Your task to perform on an android device: uninstall "Contacts" Image 0: 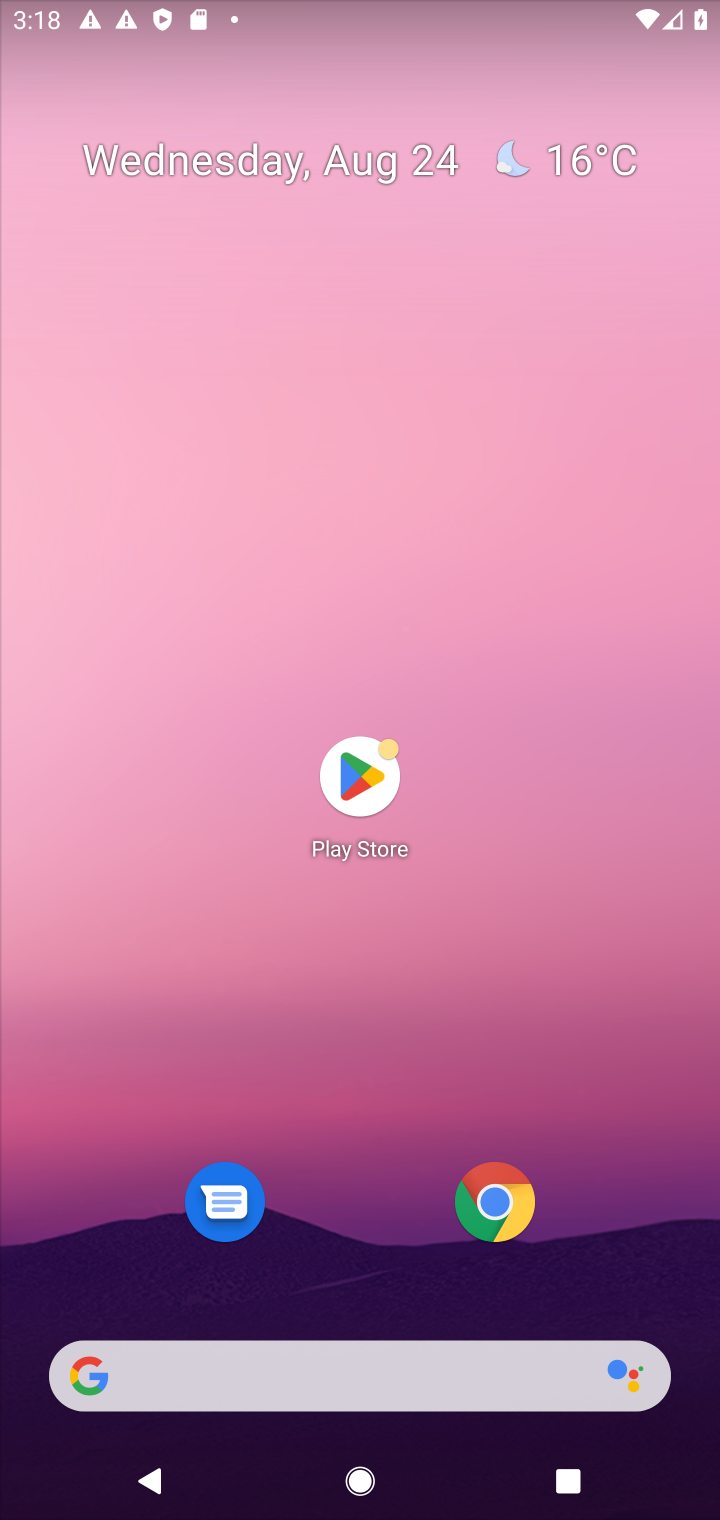
Step 0: click (356, 762)
Your task to perform on an android device: uninstall "Contacts" Image 1: 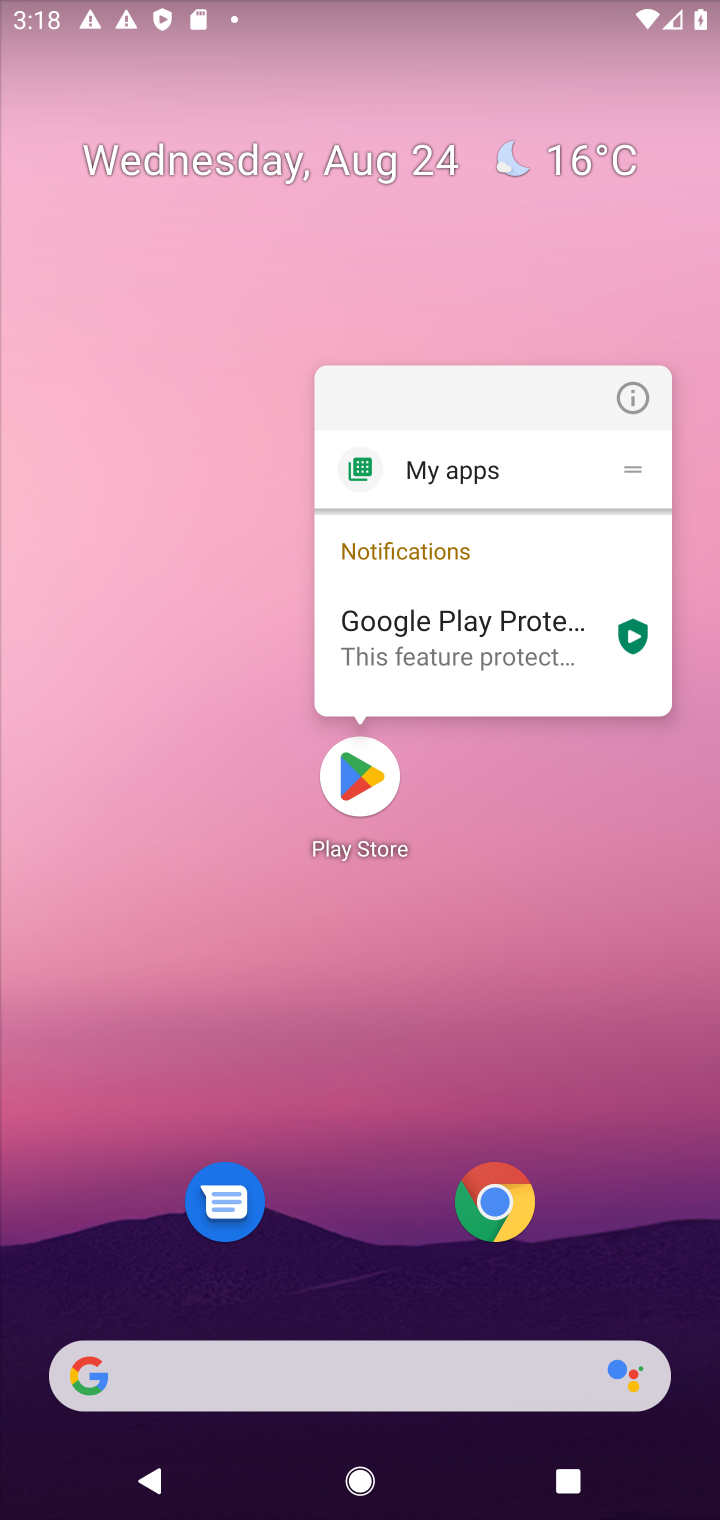
Step 1: click (356, 766)
Your task to perform on an android device: uninstall "Contacts" Image 2: 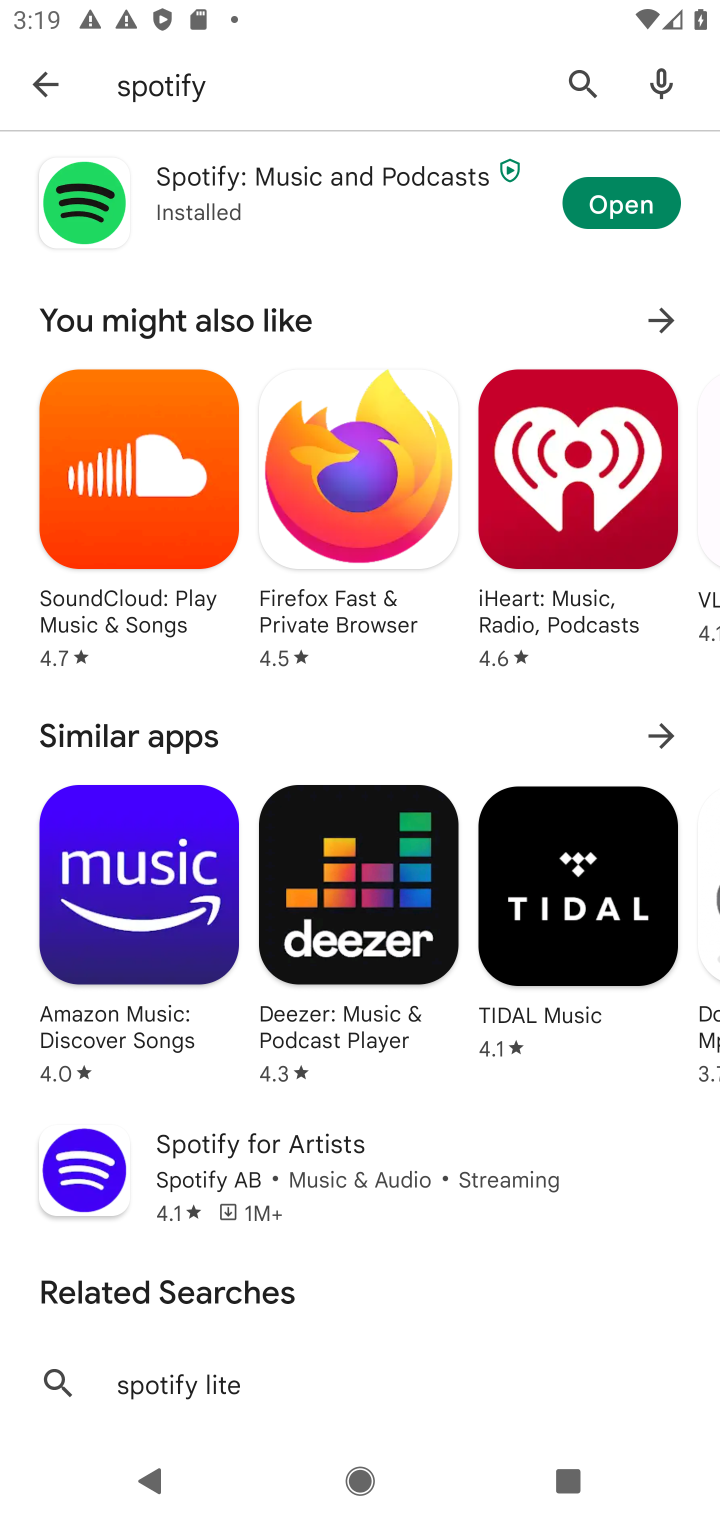
Step 2: click (575, 78)
Your task to perform on an android device: uninstall "Contacts" Image 3: 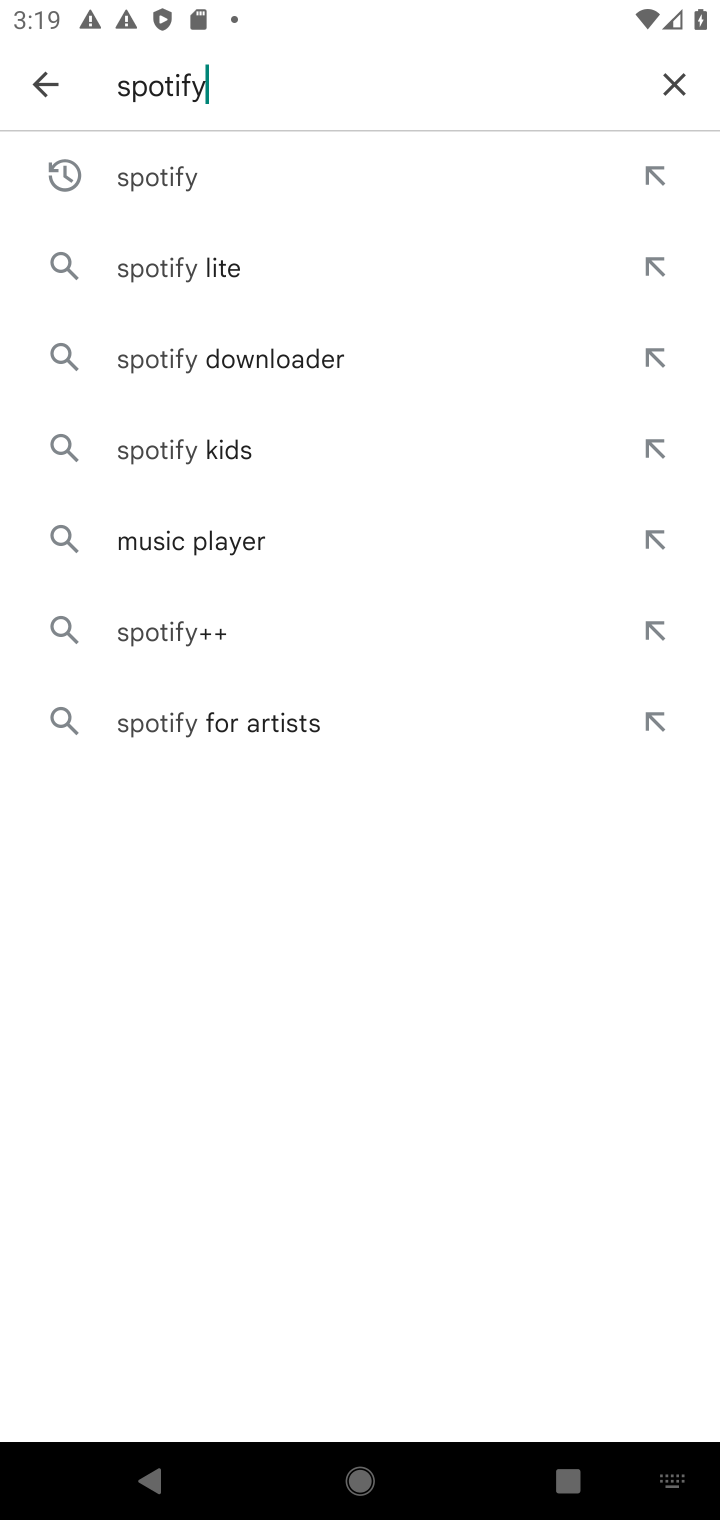
Step 3: click (676, 80)
Your task to perform on an android device: uninstall "Contacts" Image 4: 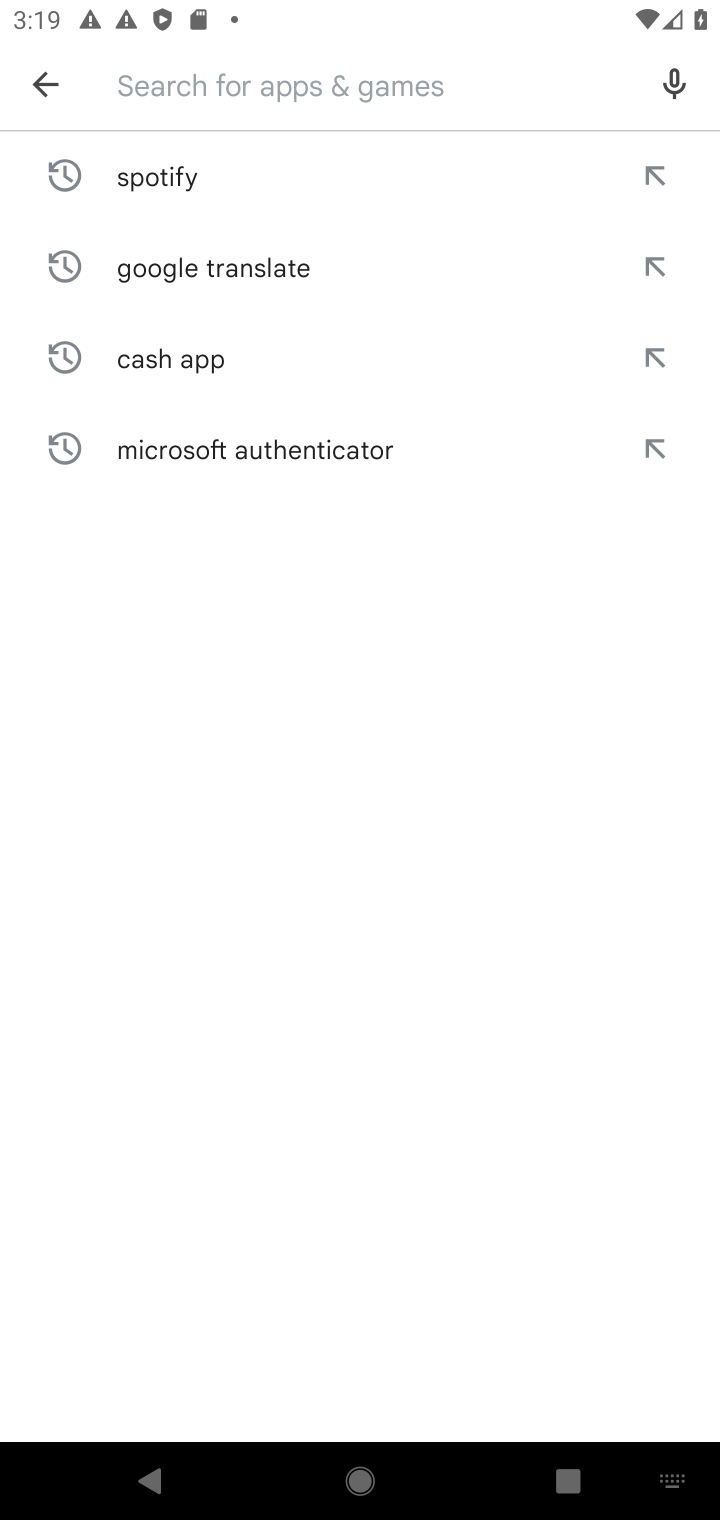
Step 4: type "Contacts"
Your task to perform on an android device: uninstall "Contacts" Image 5: 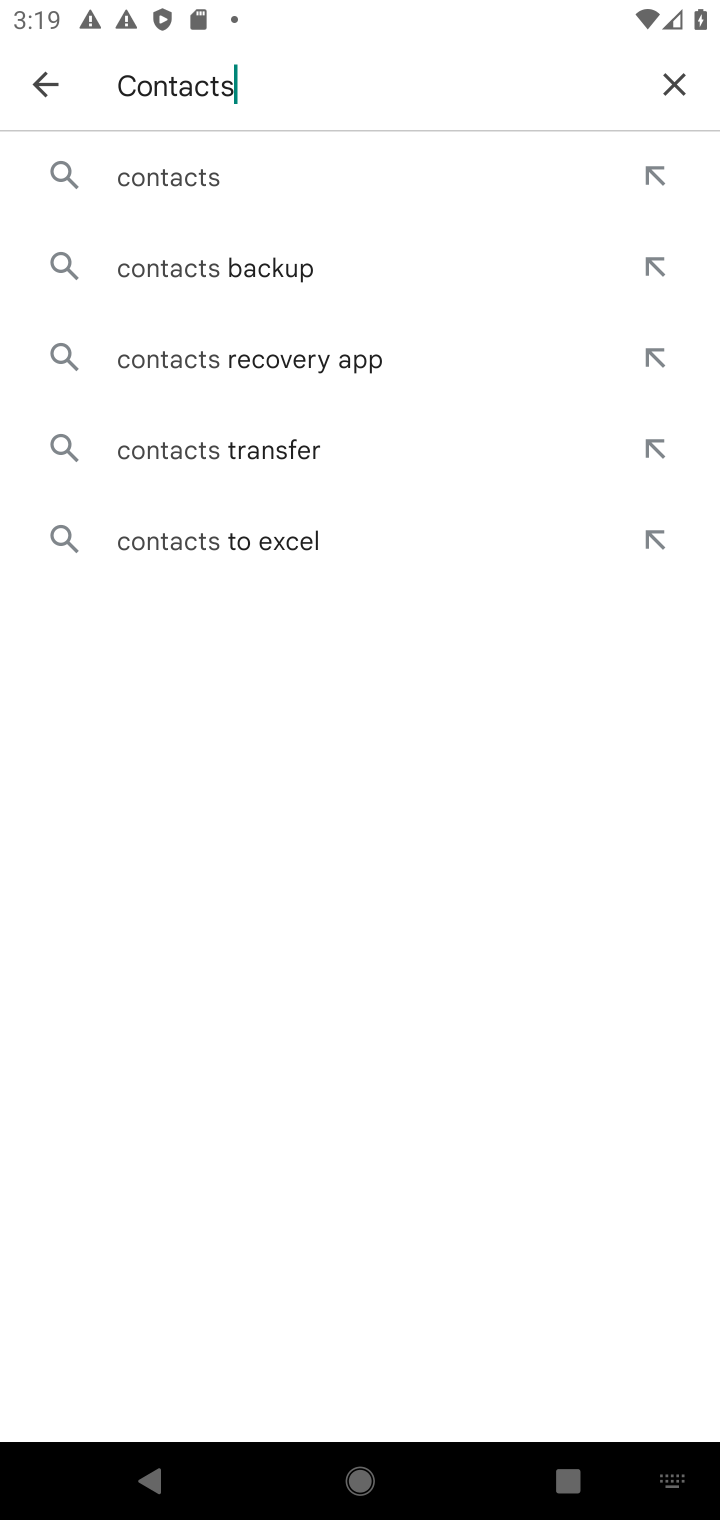
Step 5: click (198, 171)
Your task to perform on an android device: uninstall "Contacts" Image 6: 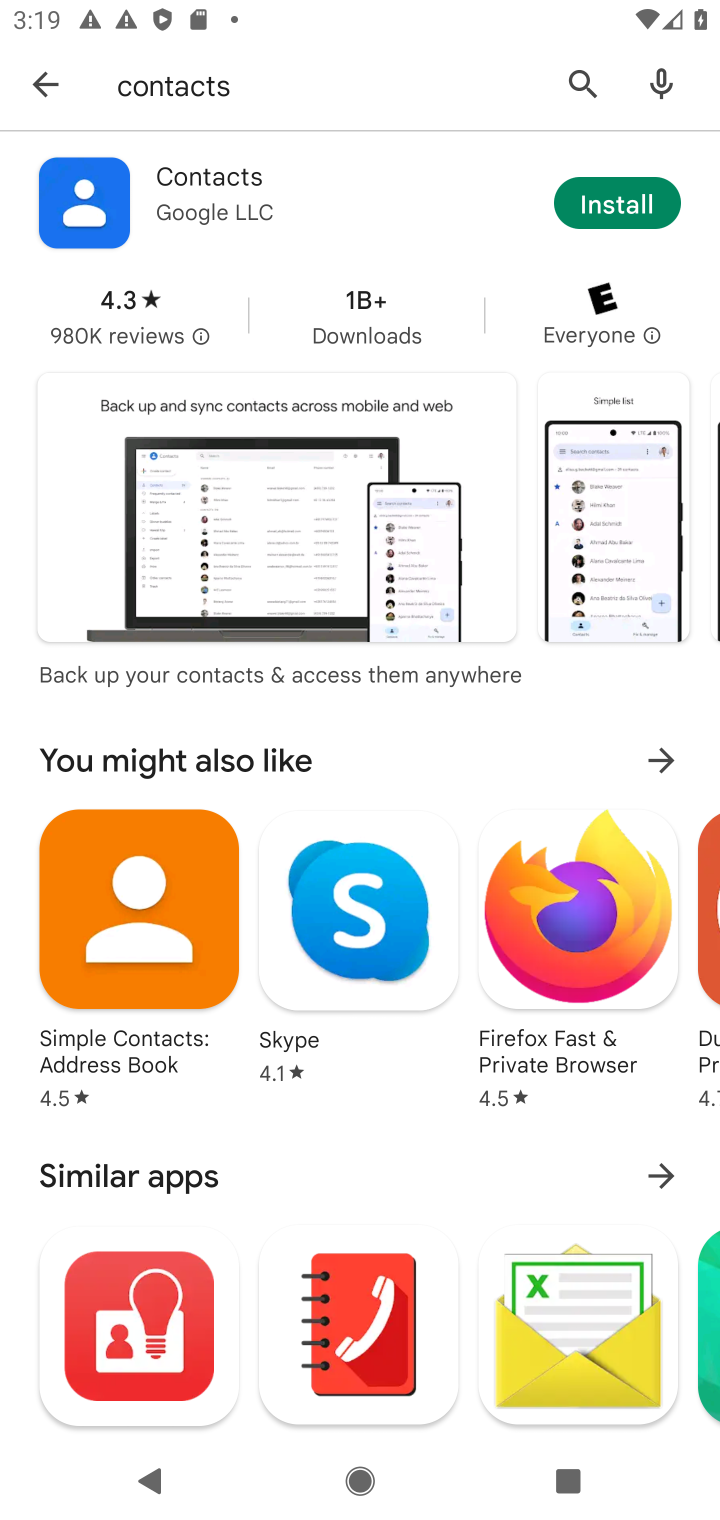
Step 6: task complete